Your task to perform on an android device: open sync settings in chrome Image 0: 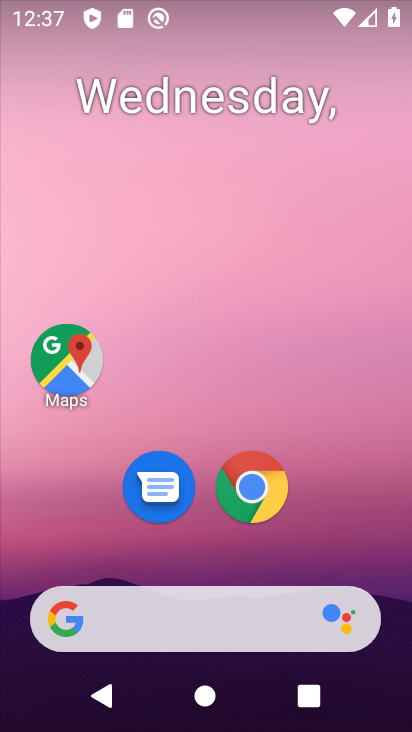
Step 0: drag from (212, 517) to (276, 14)
Your task to perform on an android device: open sync settings in chrome Image 1: 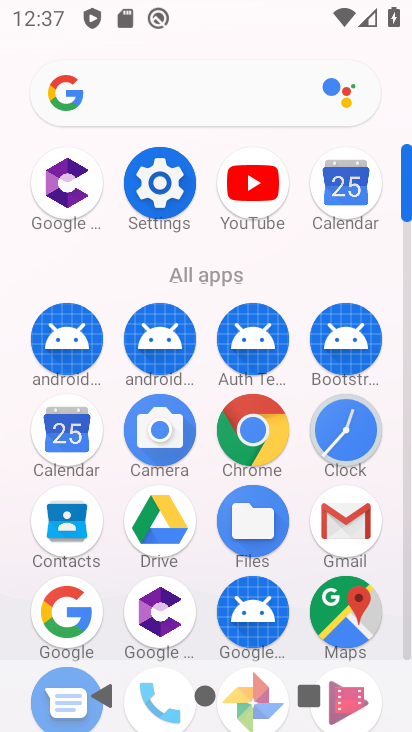
Step 1: click (172, 239)
Your task to perform on an android device: open sync settings in chrome Image 2: 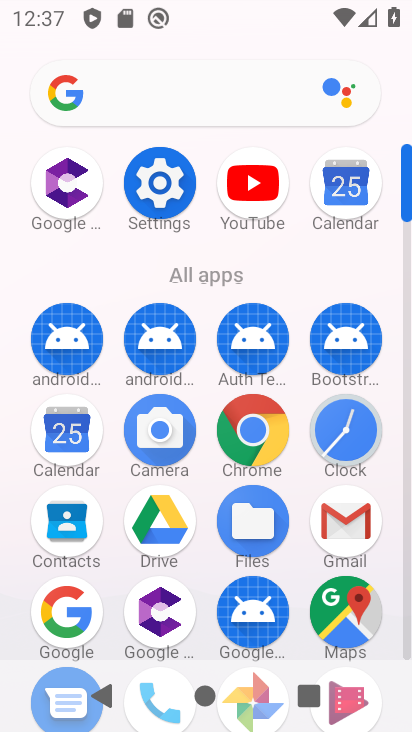
Step 2: click (155, 215)
Your task to perform on an android device: open sync settings in chrome Image 3: 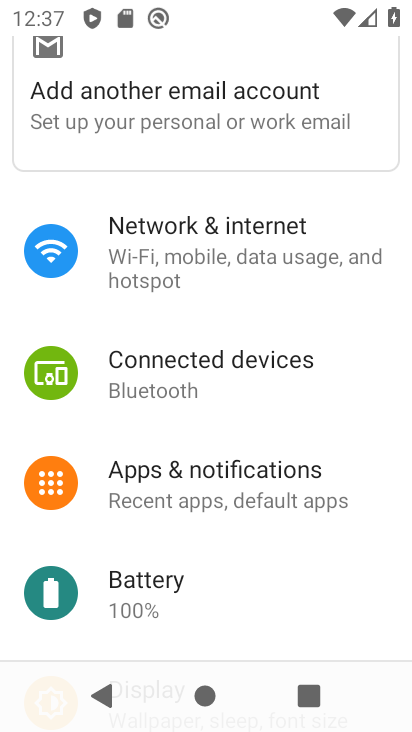
Step 3: task complete